Your task to perform on an android device: install app "LiveIn - Share Your Moment" Image 0: 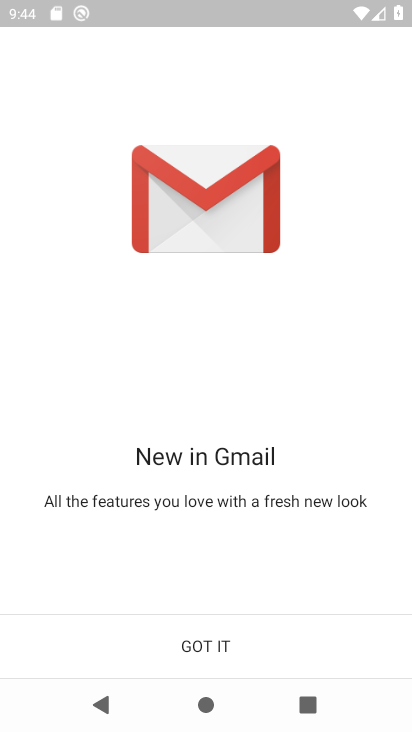
Step 0: press home button
Your task to perform on an android device: install app "LiveIn - Share Your Moment" Image 1: 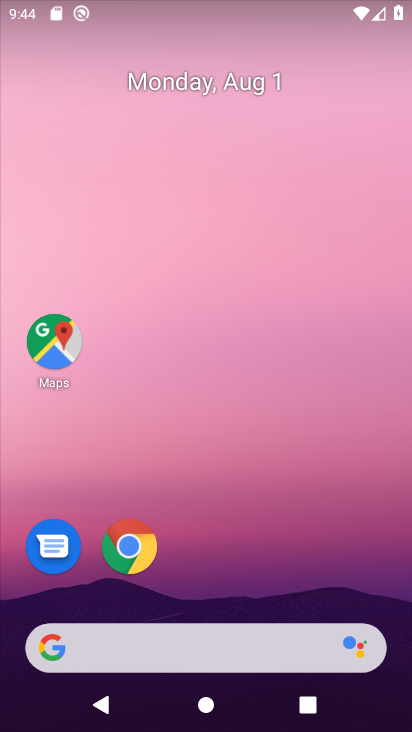
Step 1: drag from (207, 602) to (264, 16)
Your task to perform on an android device: install app "LiveIn - Share Your Moment" Image 2: 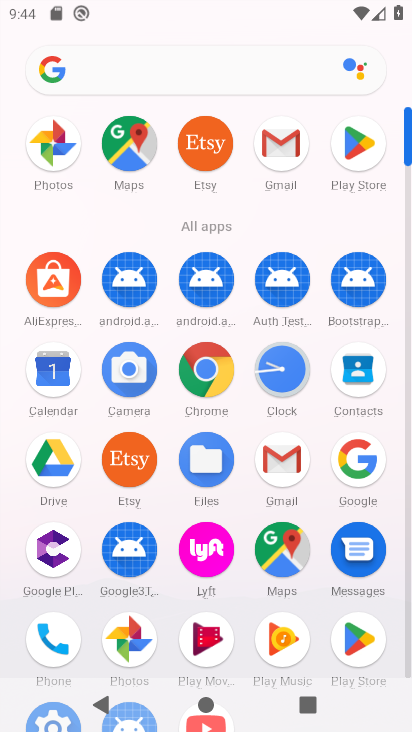
Step 2: click (356, 136)
Your task to perform on an android device: install app "LiveIn - Share Your Moment" Image 3: 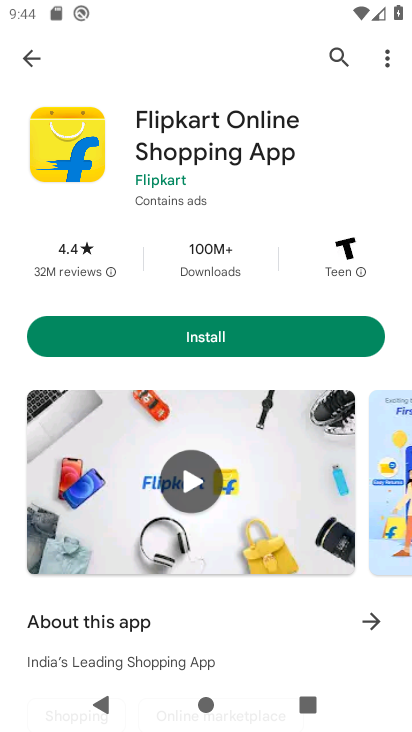
Step 3: click (337, 55)
Your task to perform on an android device: install app "LiveIn - Share Your Moment" Image 4: 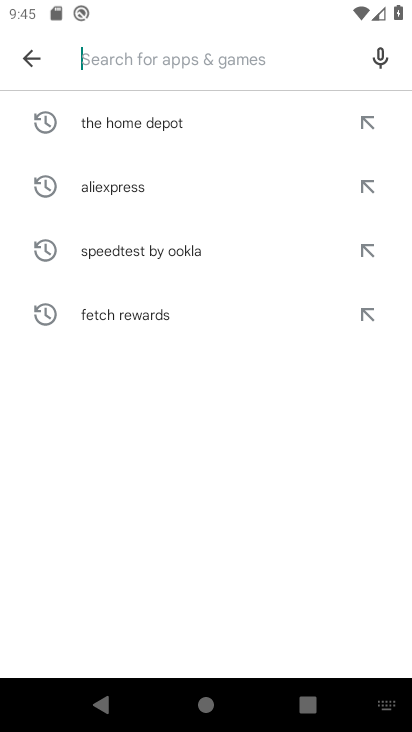
Step 4: type "LiveIn - Share Your Moment"
Your task to perform on an android device: install app "LiveIn - Share Your Moment" Image 5: 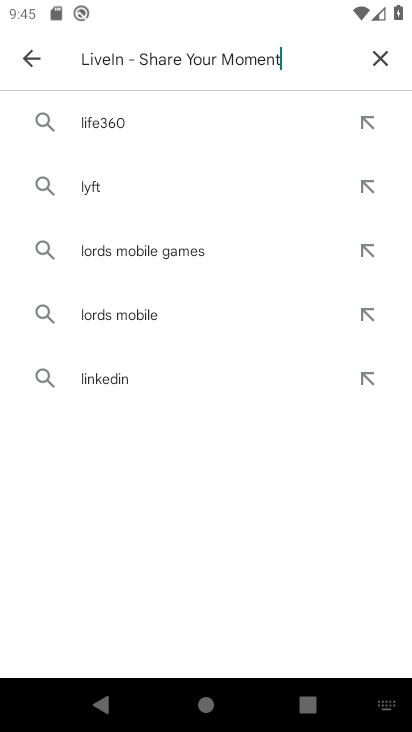
Step 5: type ""
Your task to perform on an android device: install app "LiveIn - Share Your Moment" Image 6: 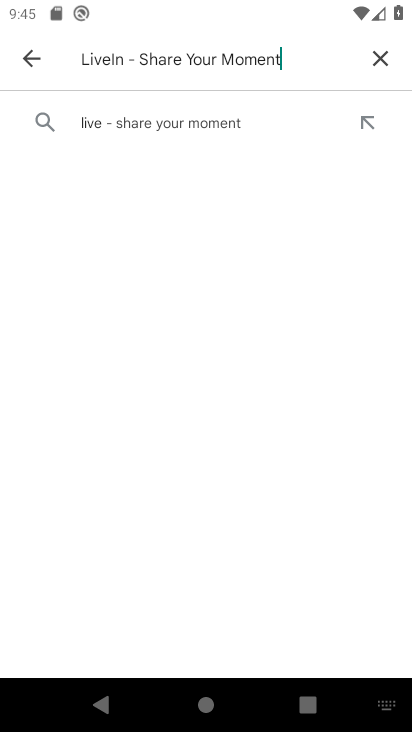
Step 6: click (184, 127)
Your task to perform on an android device: install app "LiveIn - Share Your Moment" Image 7: 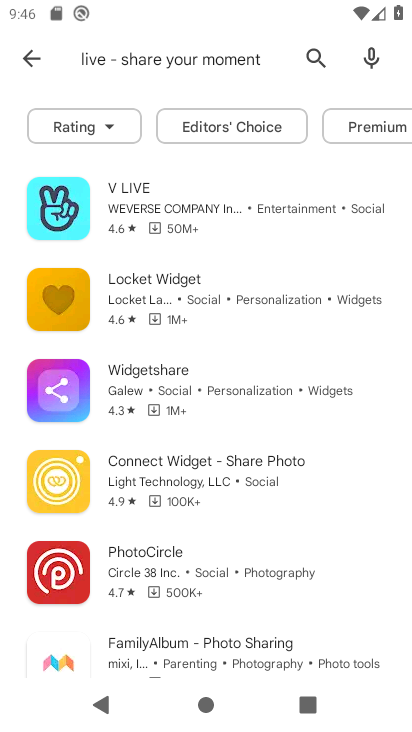
Step 7: task complete